Your task to perform on an android device: Open Google Image 0: 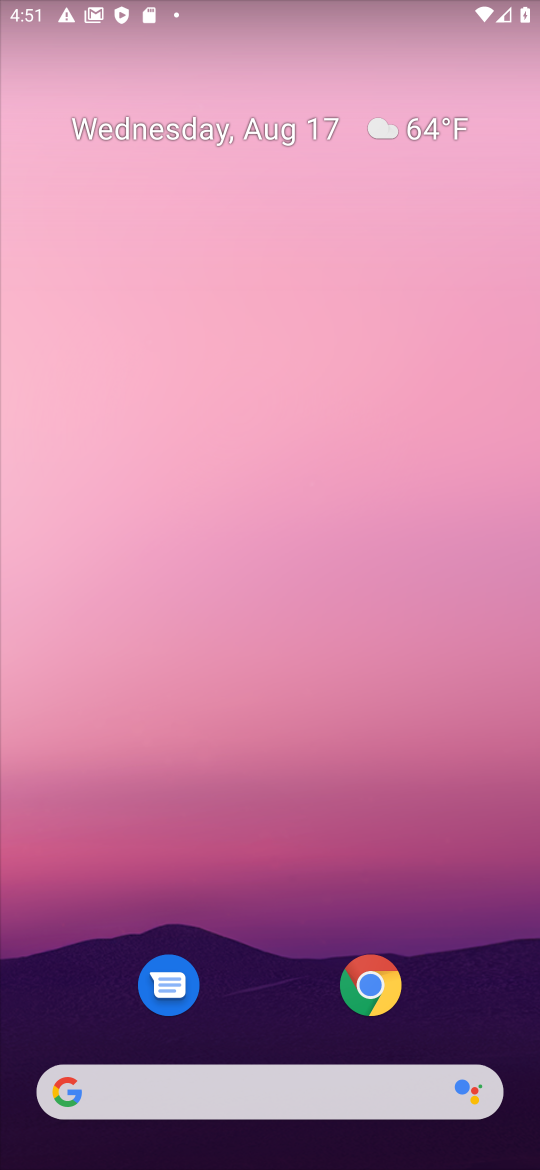
Step 0: drag from (293, 1083) to (302, 324)
Your task to perform on an android device: Open Google Image 1: 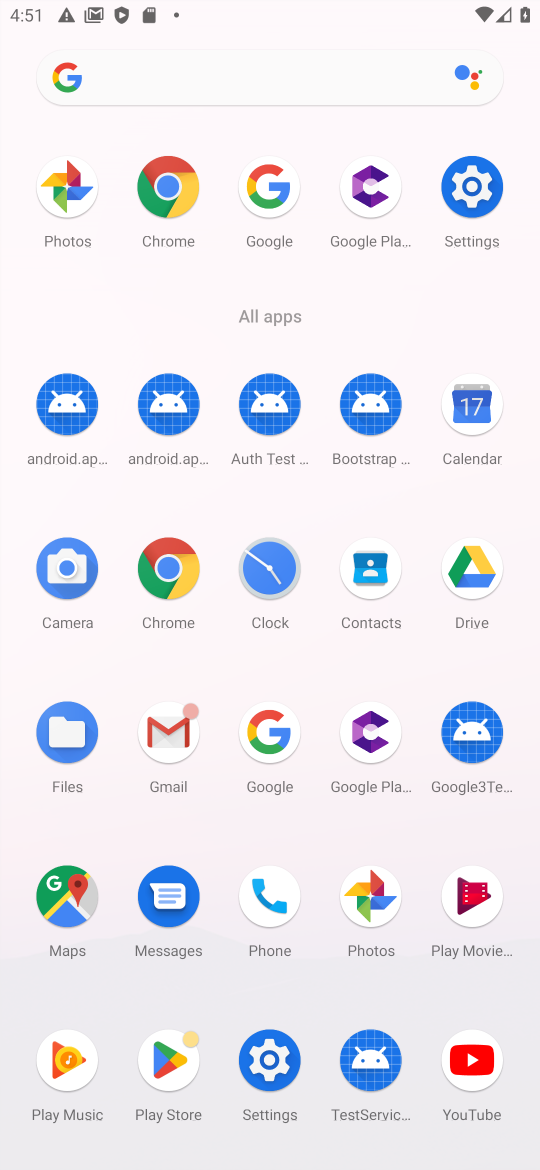
Step 1: click (269, 185)
Your task to perform on an android device: Open Google Image 2: 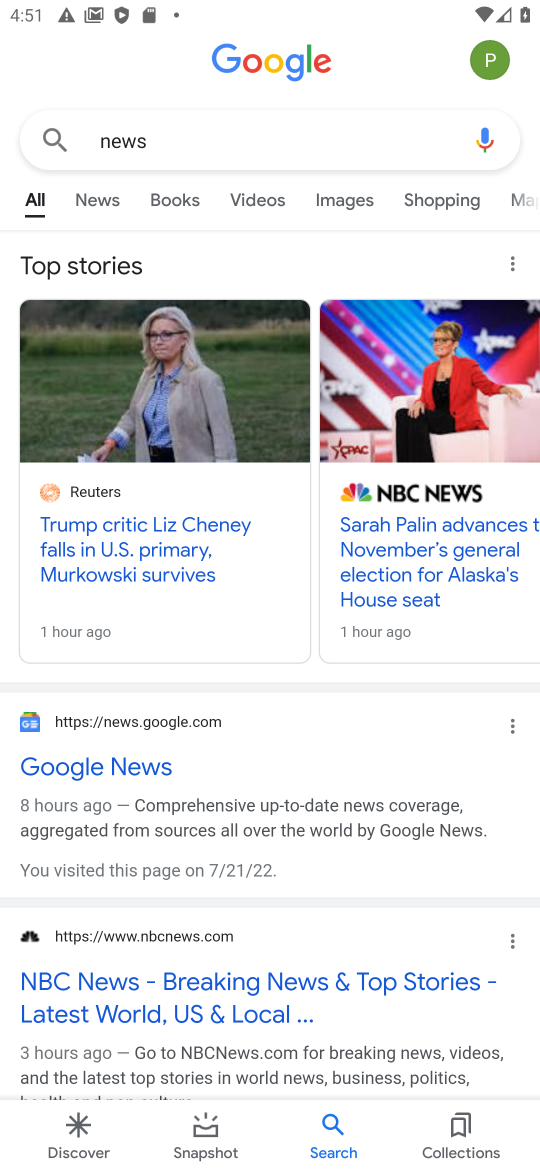
Step 2: task complete